Your task to perform on an android device: Check the news Image 0: 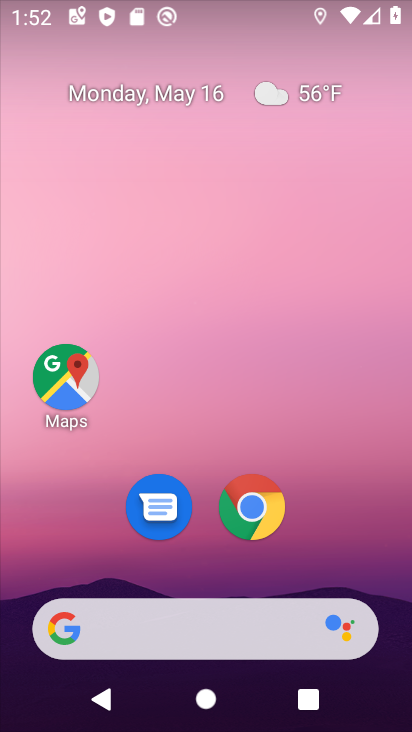
Step 0: drag from (200, 553) to (235, 76)
Your task to perform on an android device: Check the news Image 1: 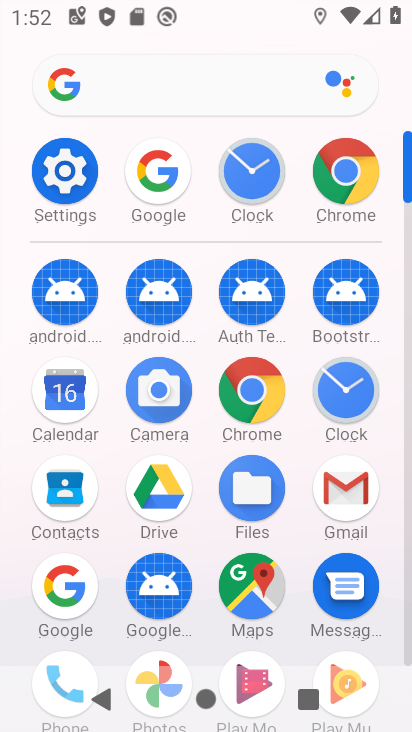
Step 1: click (153, 177)
Your task to perform on an android device: Check the news Image 2: 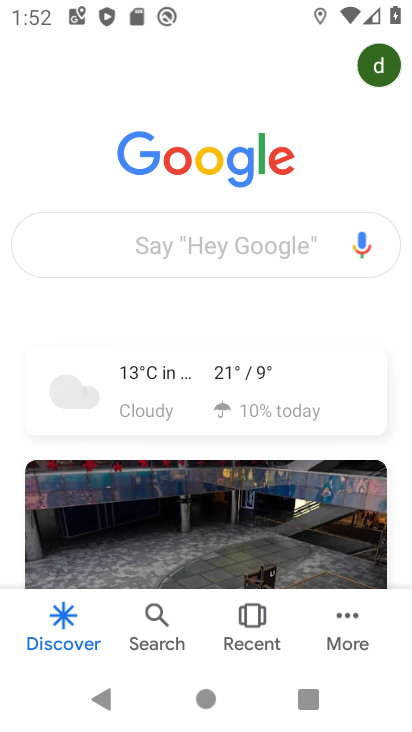
Step 2: click (158, 219)
Your task to perform on an android device: Check the news Image 3: 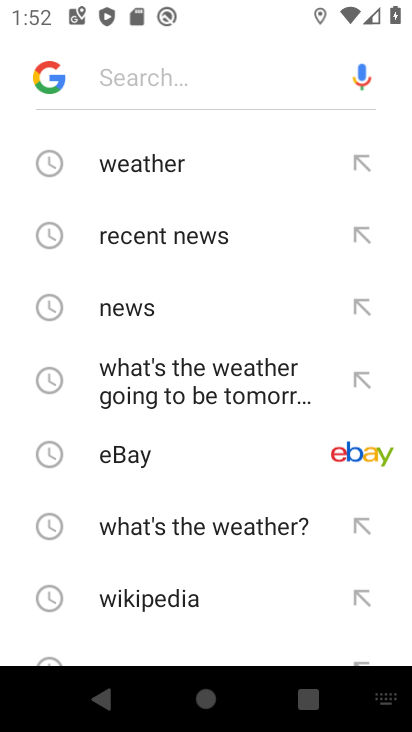
Step 3: click (174, 313)
Your task to perform on an android device: Check the news Image 4: 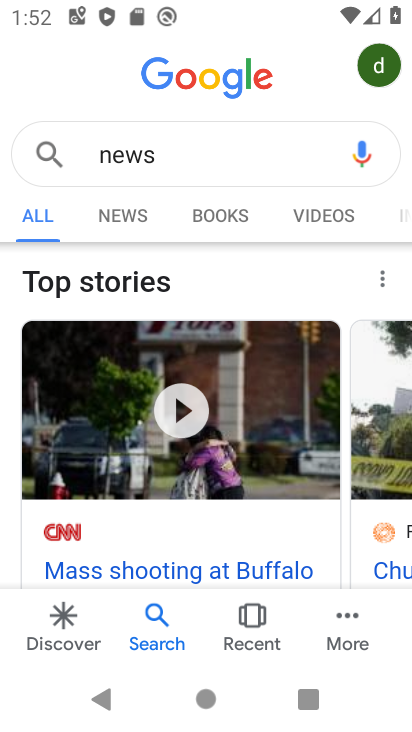
Step 4: task complete